Your task to perform on an android device: open app "Airtel Thanks" (install if not already installed) Image 0: 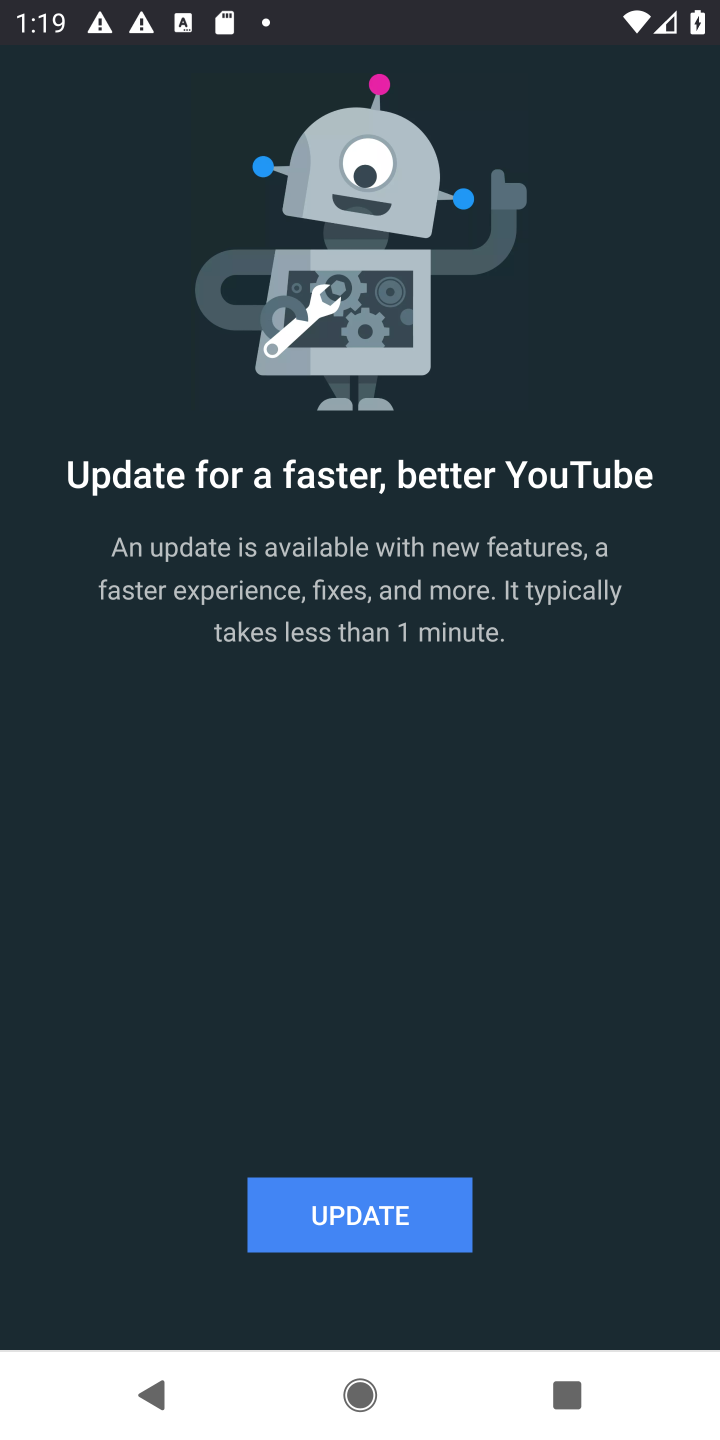
Step 0: press home button
Your task to perform on an android device: open app "Airtel Thanks" (install if not already installed) Image 1: 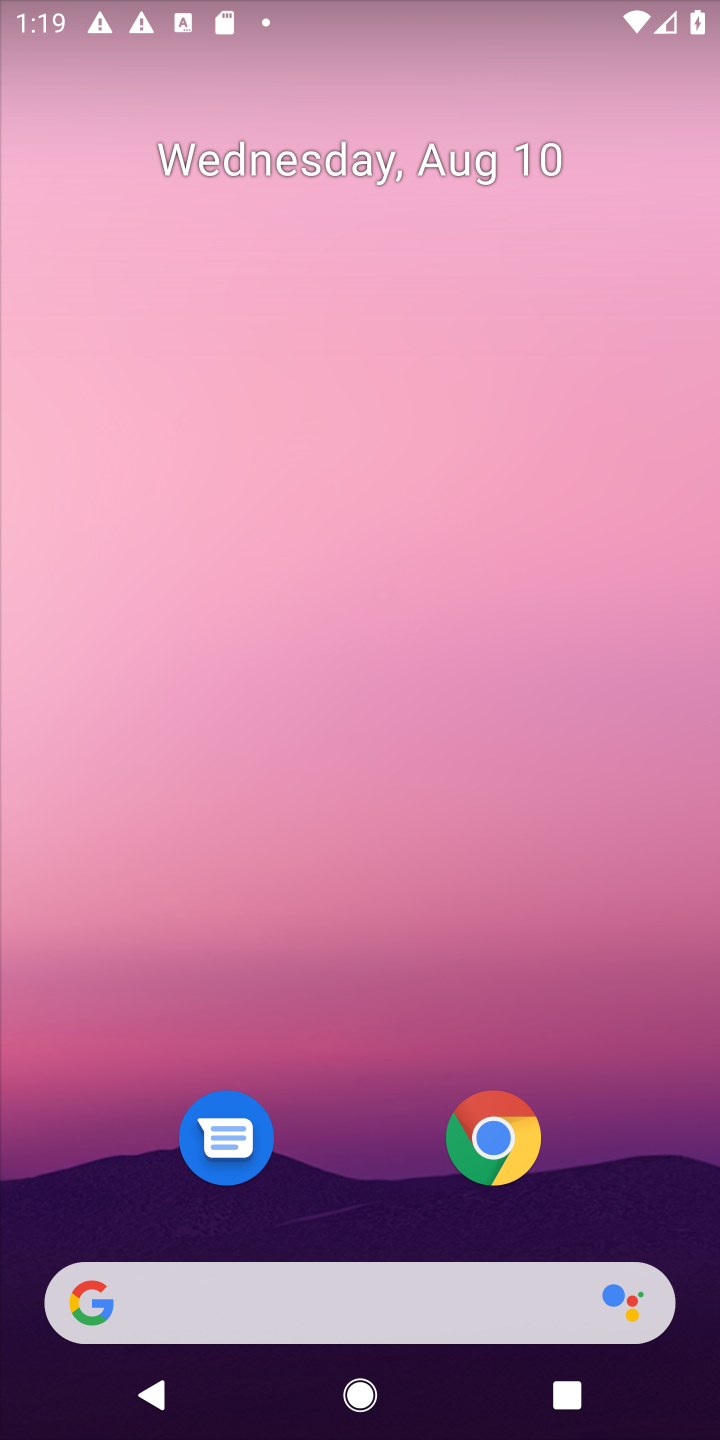
Step 1: drag from (600, 706) to (601, 82)
Your task to perform on an android device: open app "Airtel Thanks" (install if not already installed) Image 2: 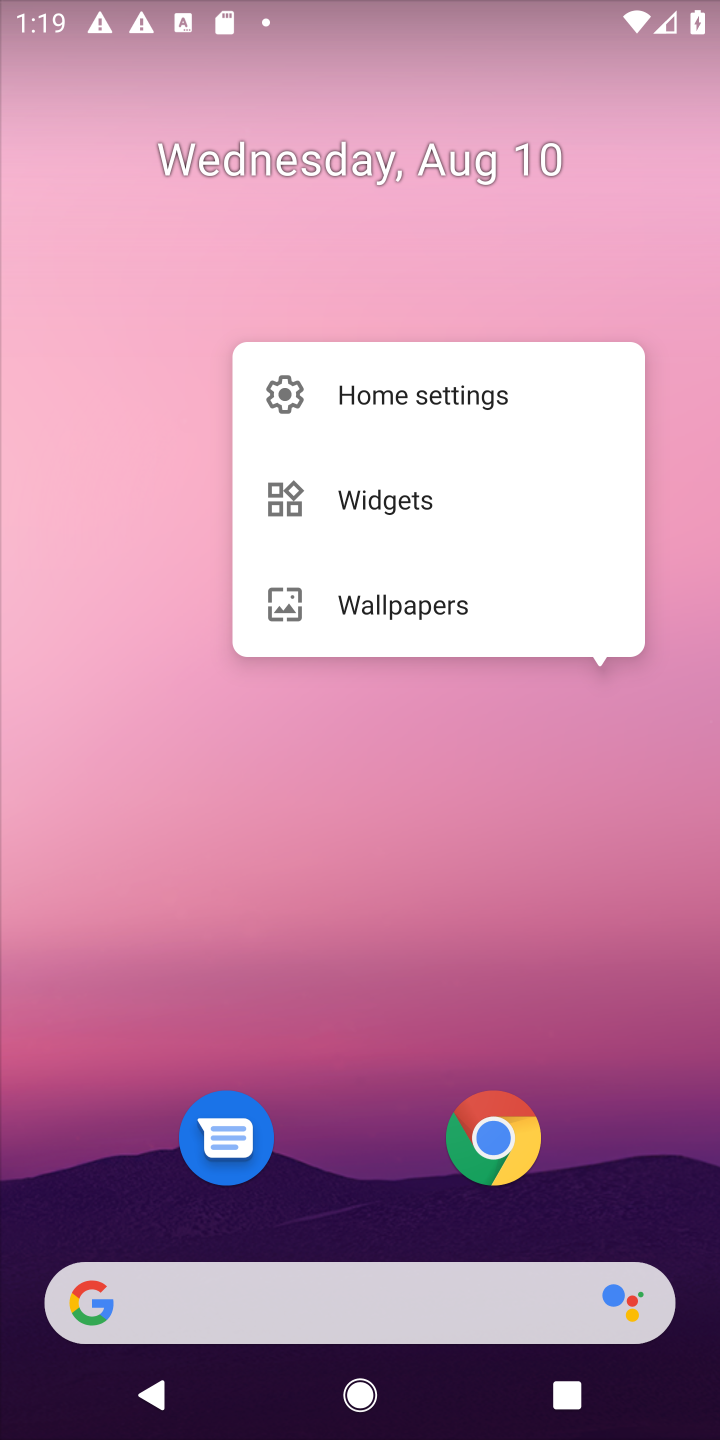
Step 2: click (697, 968)
Your task to perform on an android device: open app "Airtel Thanks" (install if not already installed) Image 3: 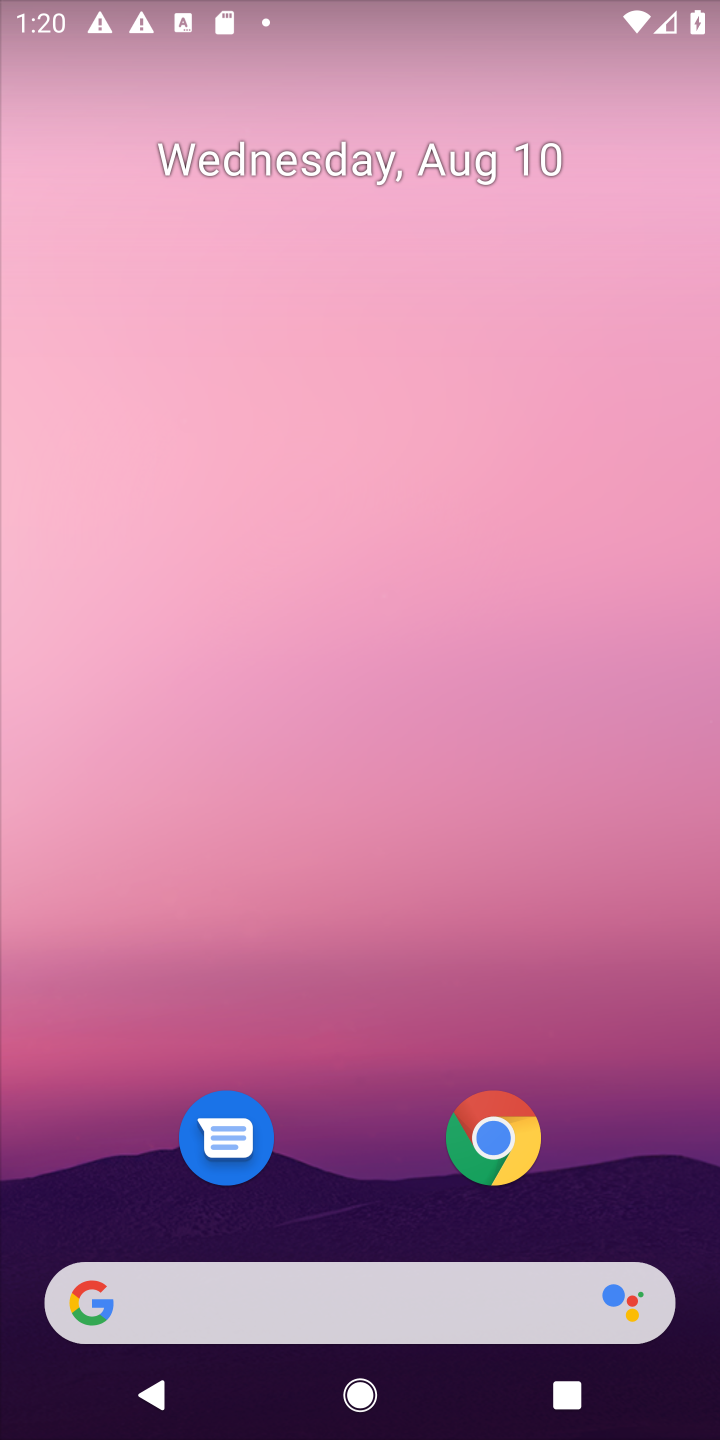
Step 3: drag from (598, 1104) to (569, 39)
Your task to perform on an android device: open app "Airtel Thanks" (install if not already installed) Image 4: 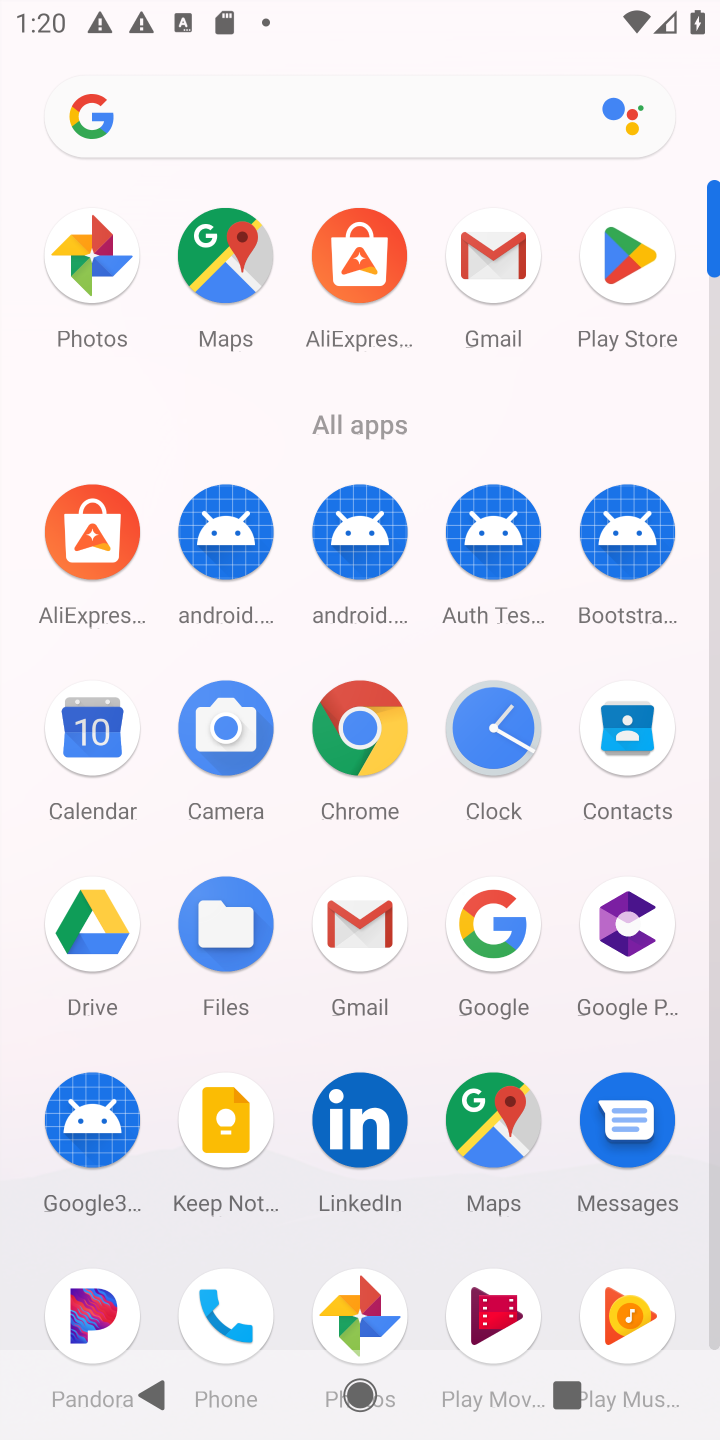
Step 4: click (621, 258)
Your task to perform on an android device: open app "Airtel Thanks" (install if not already installed) Image 5: 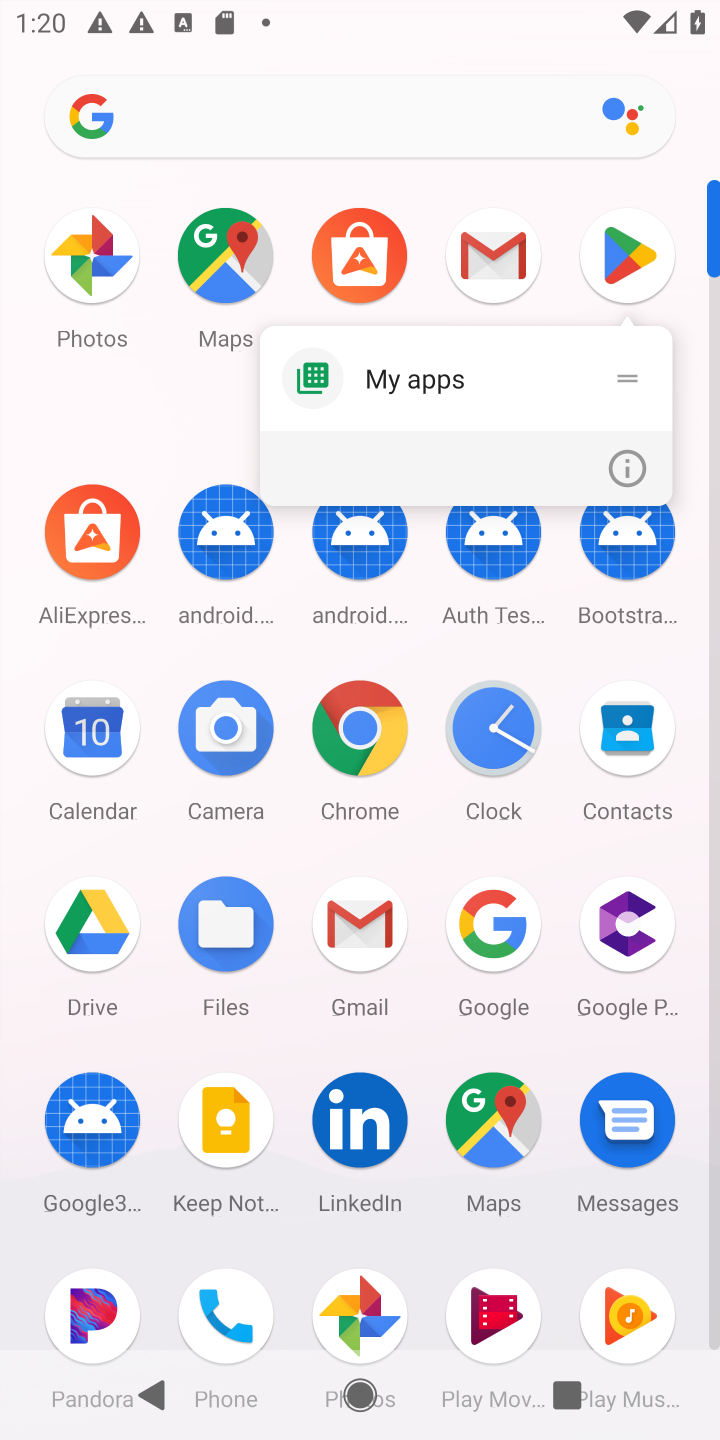
Step 5: click (624, 232)
Your task to perform on an android device: open app "Airtel Thanks" (install if not already installed) Image 6: 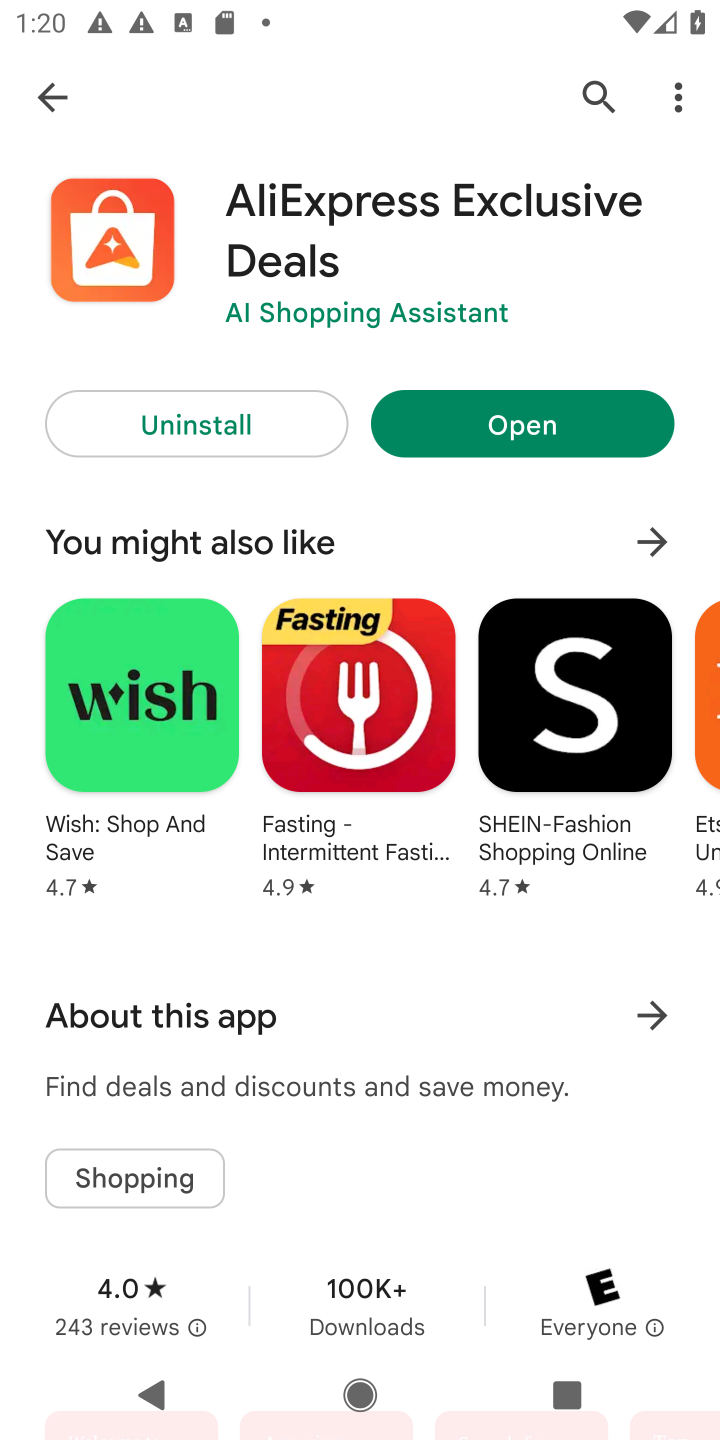
Step 6: click (593, 82)
Your task to perform on an android device: open app "Airtel Thanks" (install if not already installed) Image 7: 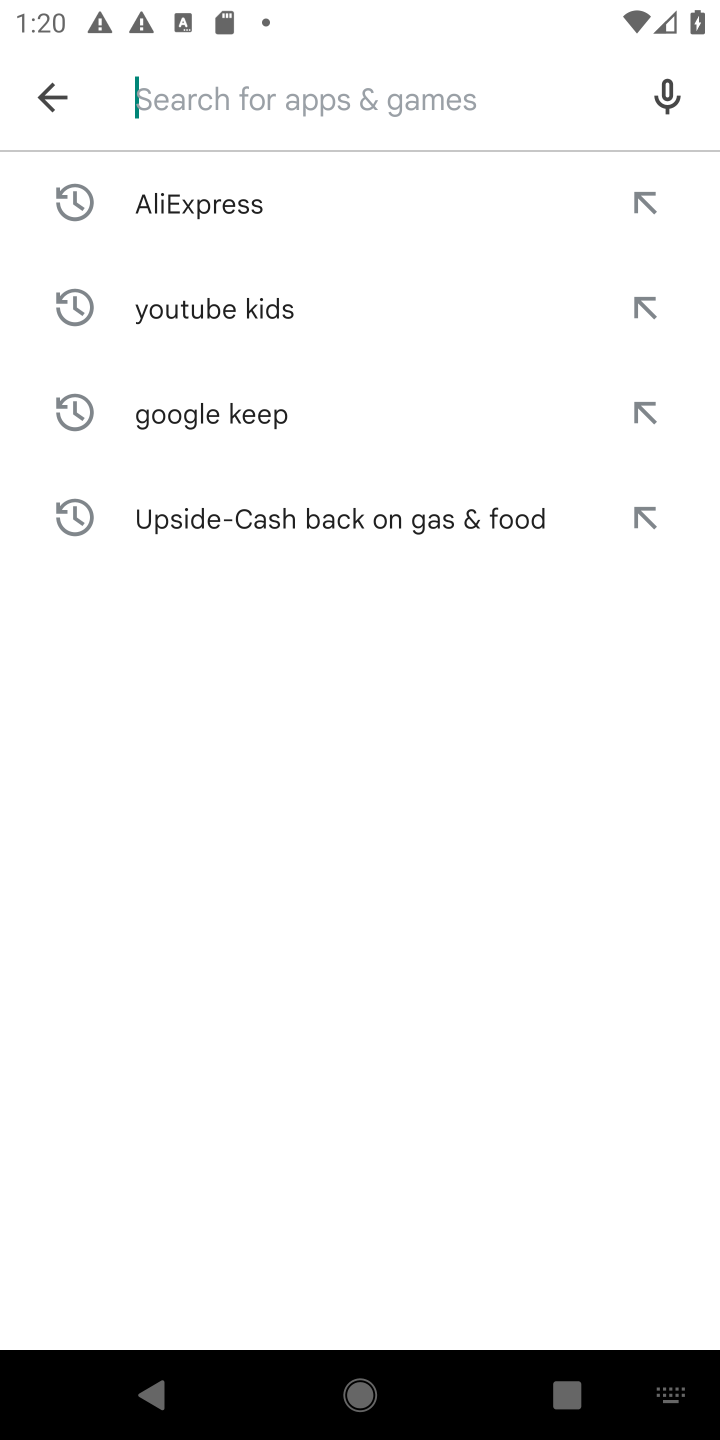
Step 7: type "airtel thanks"
Your task to perform on an android device: open app "Airtel Thanks" (install if not already installed) Image 8: 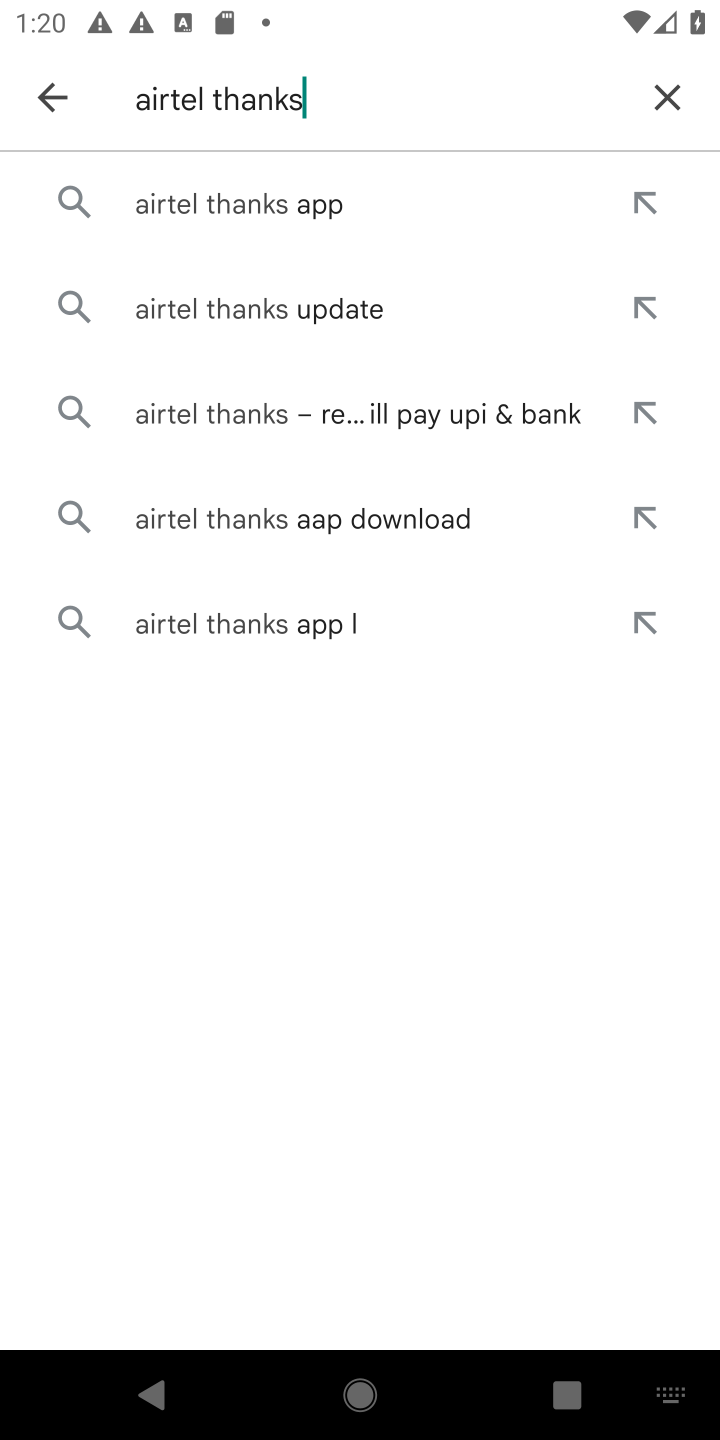
Step 8: click (330, 202)
Your task to perform on an android device: open app "Airtel Thanks" (install if not already installed) Image 9: 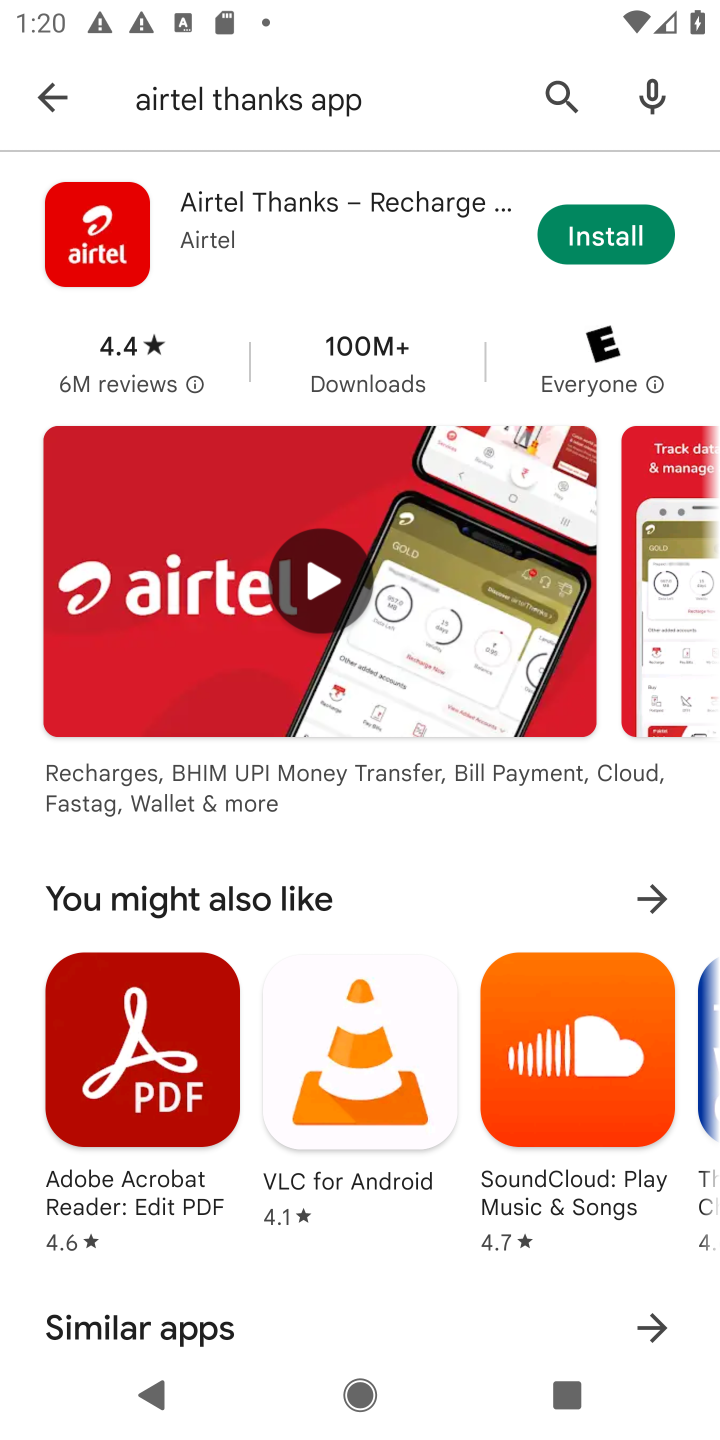
Step 9: click (626, 233)
Your task to perform on an android device: open app "Airtel Thanks" (install if not already installed) Image 10: 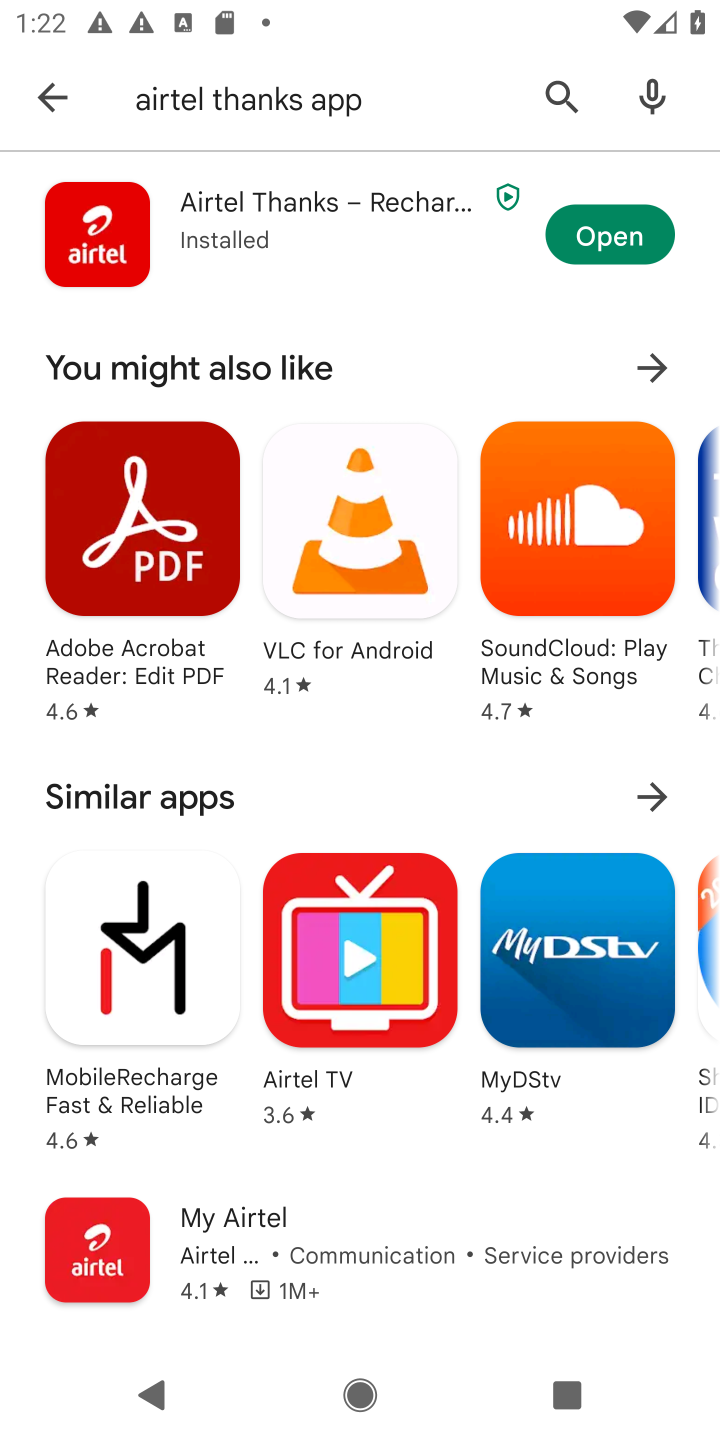
Step 10: task complete